Your task to perform on an android device: Open my contact list Image 0: 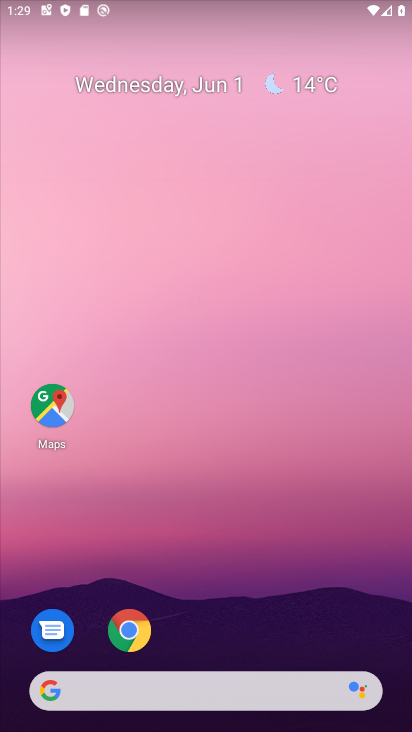
Step 0: press home button
Your task to perform on an android device: Open my contact list Image 1: 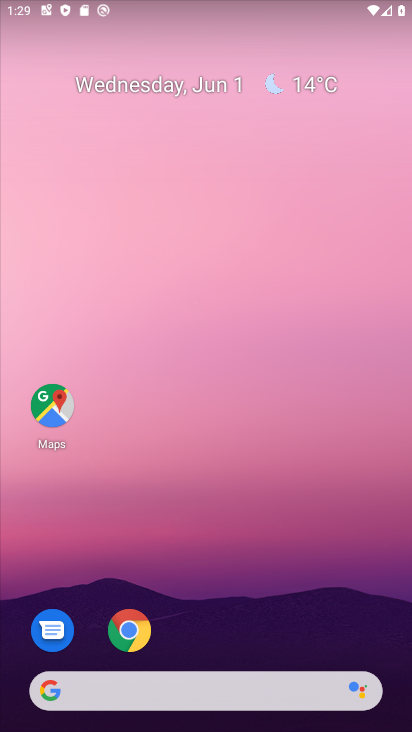
Step 1: press home button
Your task to perform on an android device: Open my contact list Image 2: 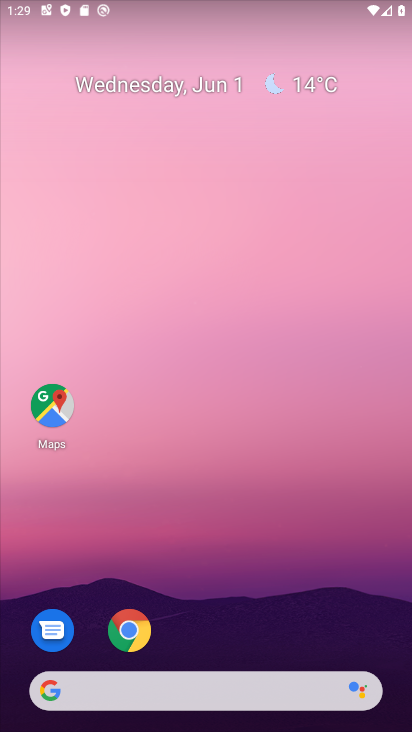
Step 2: drag from (239, 462) to (271, 139)
Your task to perform on an android device: Open my contact list Image 3: 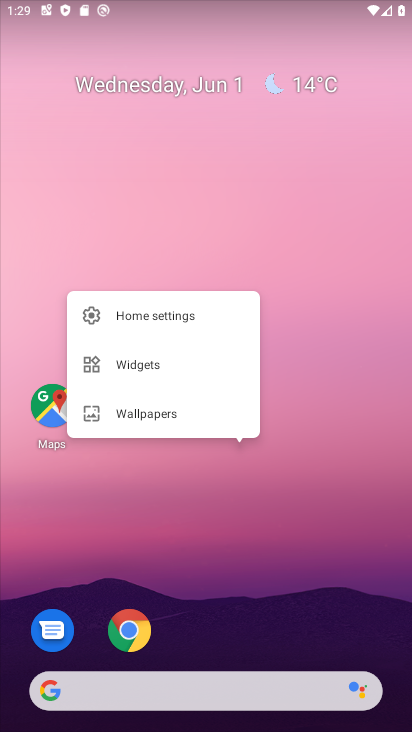
Step 3: click (284, 577)
Your task to perform on an android device: Open my contact list Image 4: 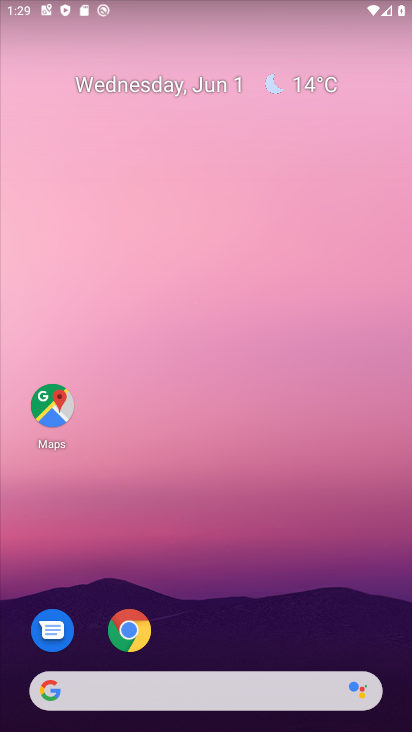
Step 4: drag from (243, 650) to (248, 154)
Your task to perform on an android device: Open my contact list Image 5: 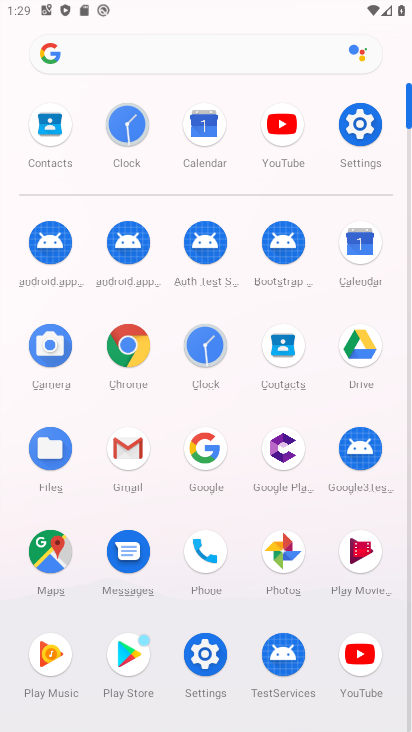
Step 5: click (279, 342)
Your task to perform on an android device: Open my contact list Image 6: 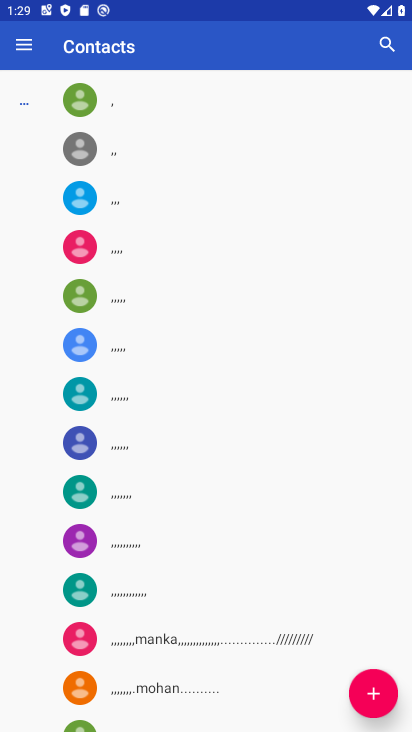
Step 6: task complete